Your task to perform on an android device: Do I have any events tomorrow? Image 0: 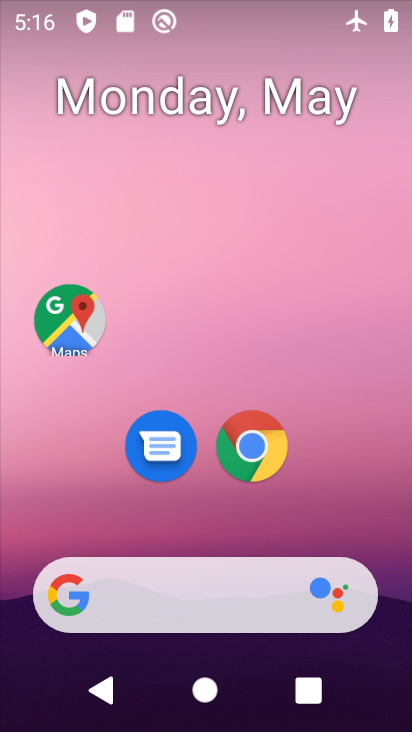
Step 0: drag from (341, 495) to (215, 129)
Your task to perform on an android device: Do I have any events tomorrow? Image 1: 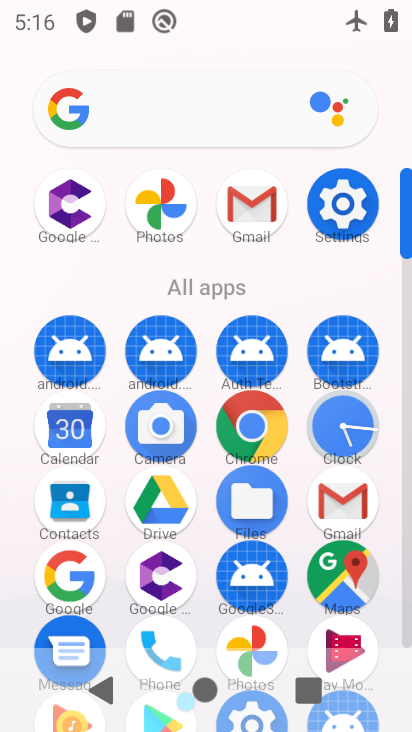
Step 1: click (72, 427)
Your task to perform on an android device: Do I have any events tomorrow? Image 2: 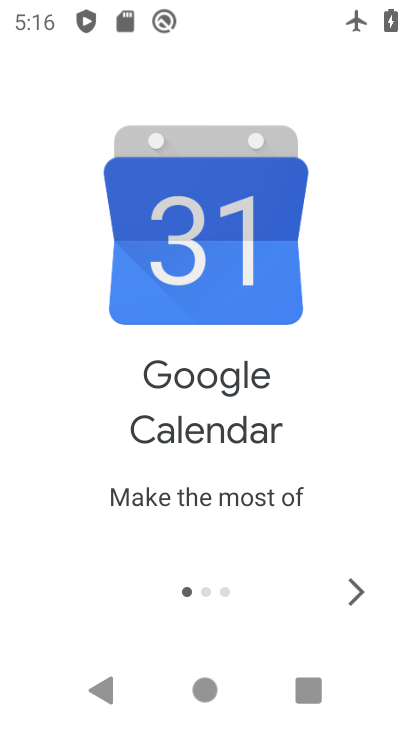
Step 2: click (350, 597)
Your task to perform on an android device: Do I have any events tomorrow? Image 3: 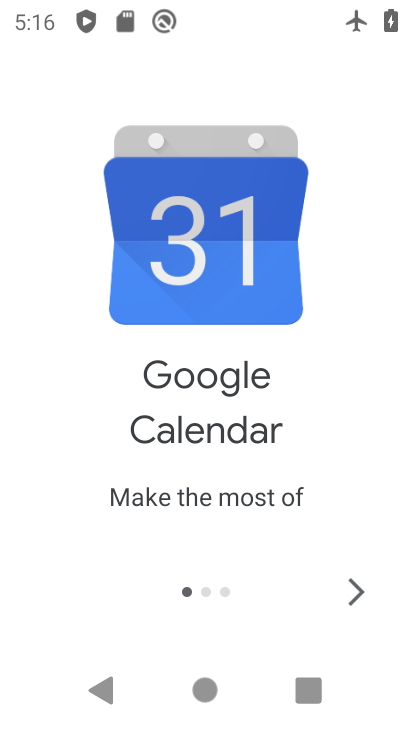
Step 3: click (350, 597)
Your task to perform on an android device: Do I have any events tomorrow? Image 4: 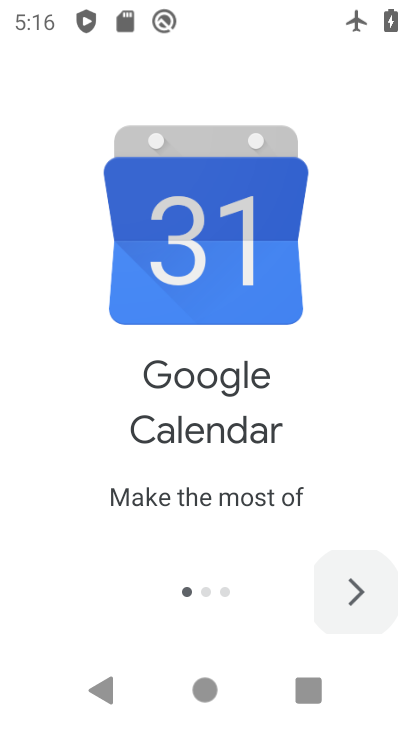
Step 4: click (350, 597)
Your task to perform on an android device: Do I have any events tomorrow? Image 5: 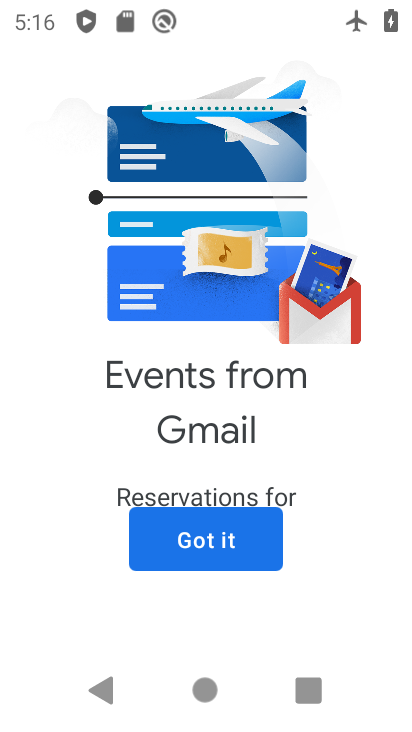
Step 5: click (235, 551)
Your task to perform on an android device: Do I have any events tomorrow? Image 6: 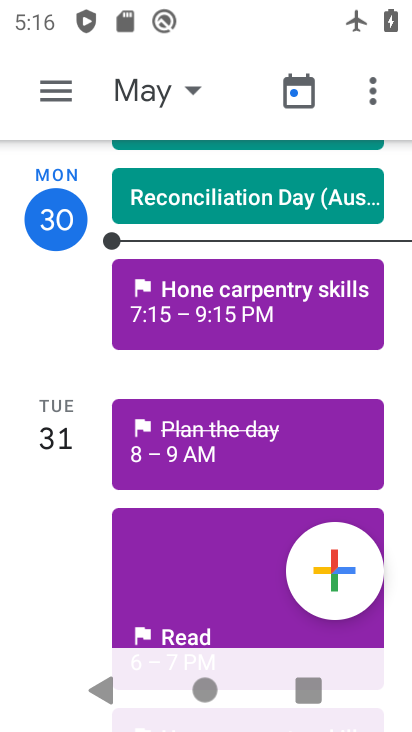
Step 6: task complete